Your task to perform on an android device: turn off notifications settings in the gmail app Image 0: 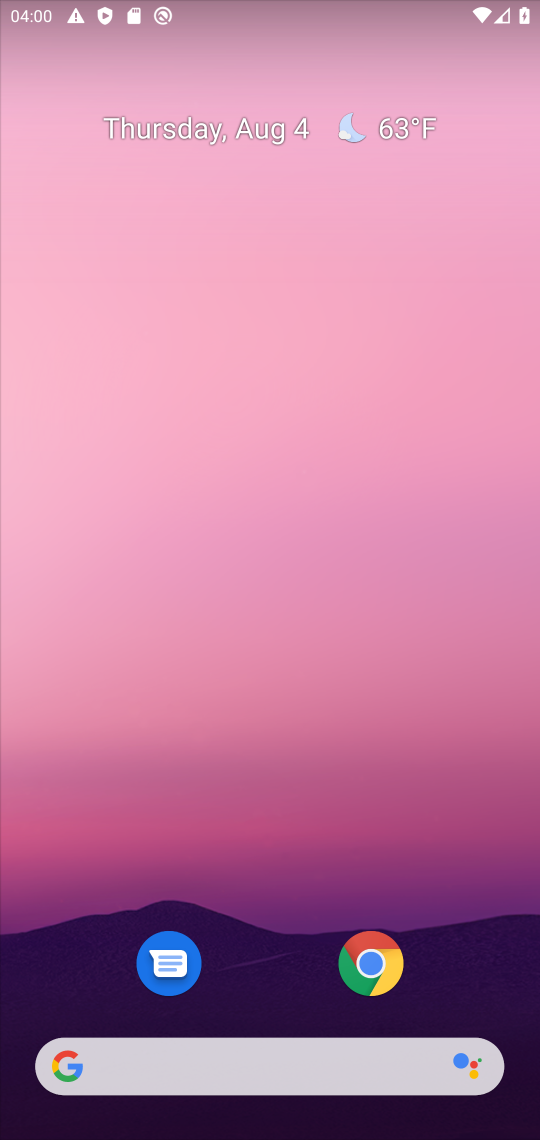
Step 0: drag from (285, 969) to (245, 0)
Your task to perform on an android device: turn off notifications settings in the gmail app Image 1: 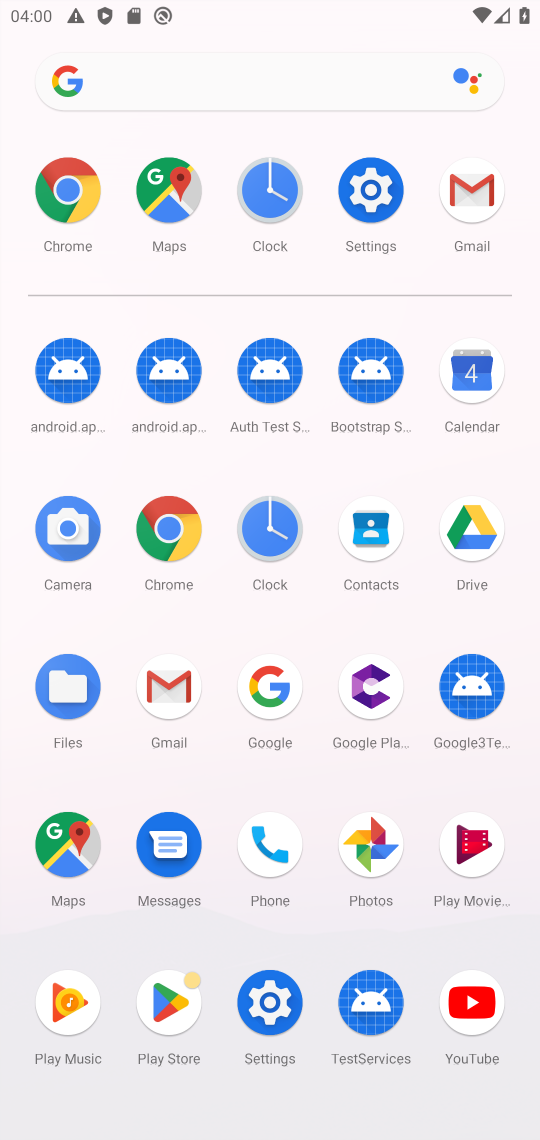
Step 1: click (477, 231)
Your task to perform on an android device: turn off notifications settings in the gmail app Image 2: 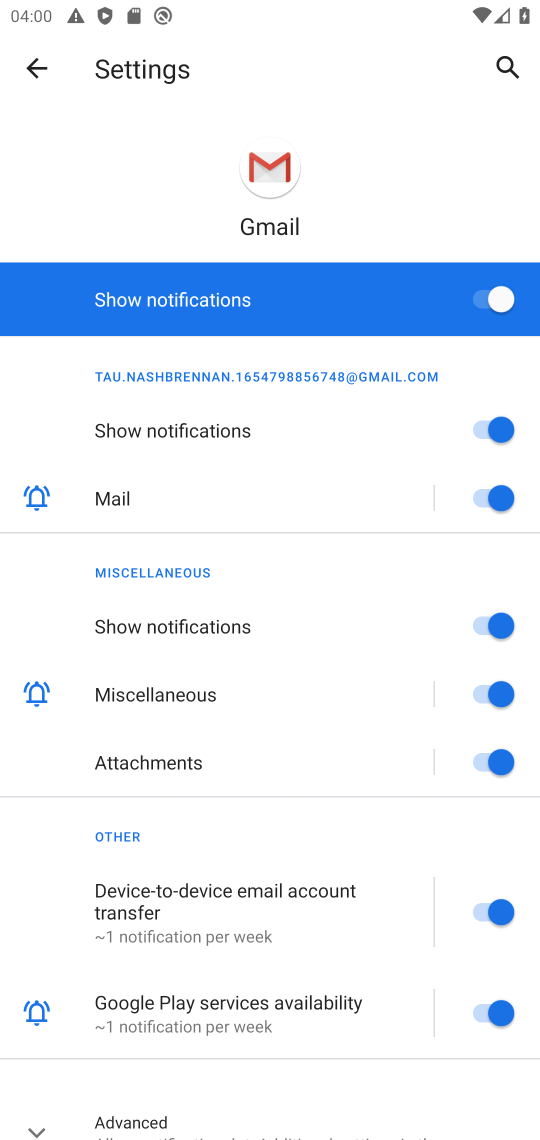
Step 2: click (499, 311)
Your task to perform on an android device: turn off notifications settings in the gmail app Image 3: 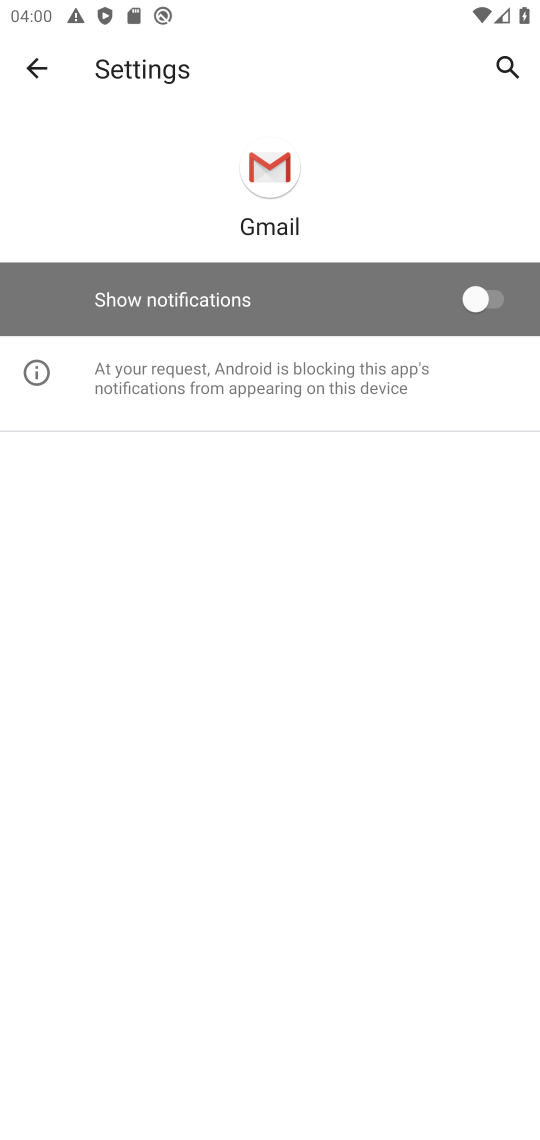
Step 3: task complete